Your task to perform on an android device: turn on improve location accuracy Image 0: 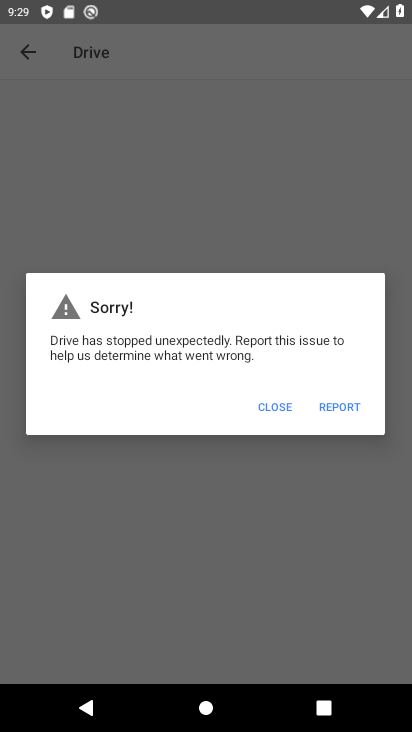
Step 0: press home button
Your task to perform on an android device: turn on improve location accuracy Image 1: 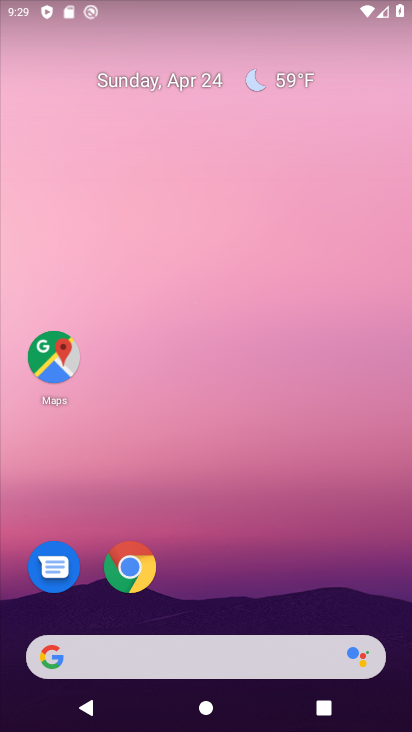
Step 1: drag from (393, 607) to (361, 367)
Your task to perform on an android device: turn on improve location accuracy Image 2: 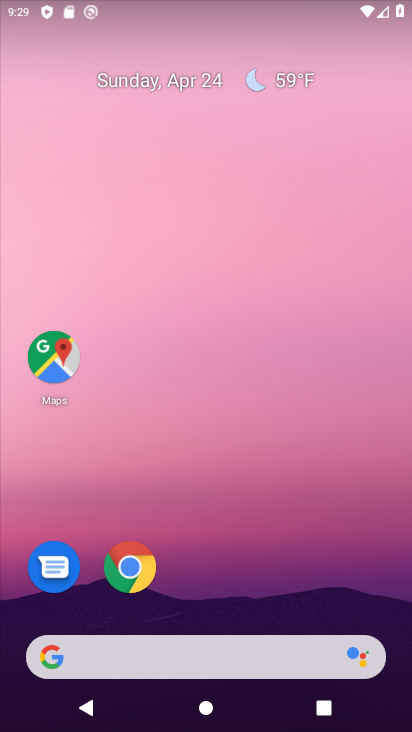
Step 2: drag from (393, 465) to (392, 270)
Your task to perform on an android device: turn on improve location accuracy Image 3: 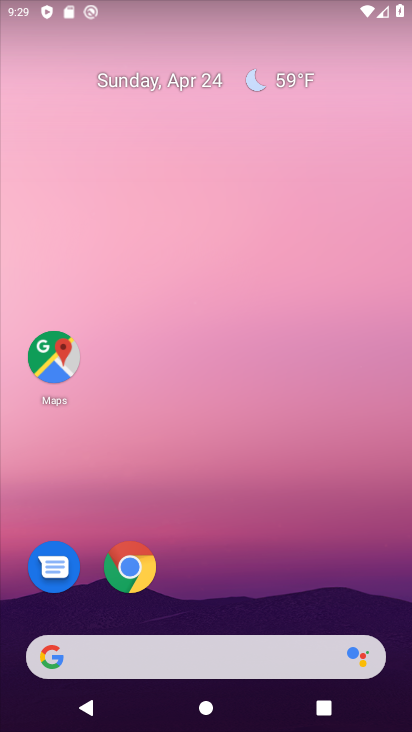
Step 3: drag from (390, 545) to (366, 212)
Your task to perform on an android device: turn on improve location accuracy Image 4: 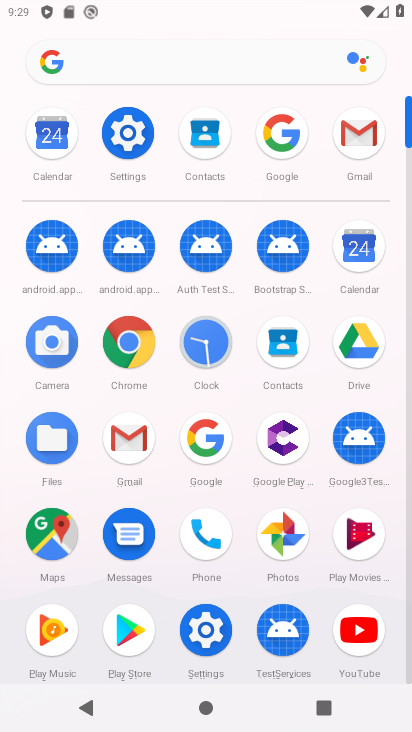
Step 4: click (128, 135)
Your task to perform on an android device: turn on improve location accuracy Image 5: 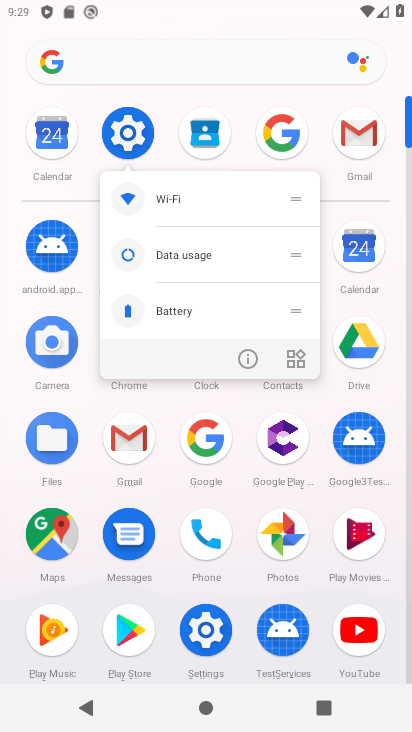
Step 5: click (131, 139)
Your task to perform on an android device: turn on improve location accuracy Image 6: 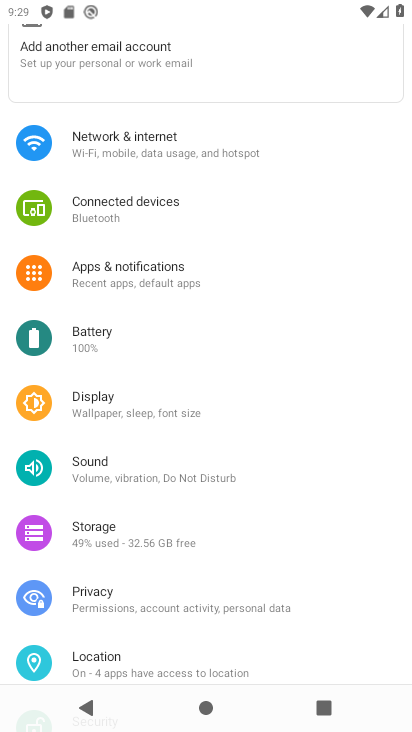
Step 6: click (131, 140)
Your task to perform on an android device: turn on improve location accuracy Image 7: 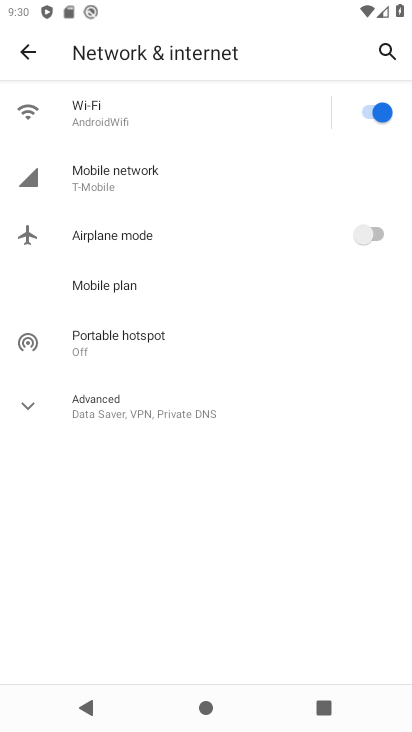
Step 7: press back button
Your task to perform on an android device: turn on improve location accuracy Image 8: 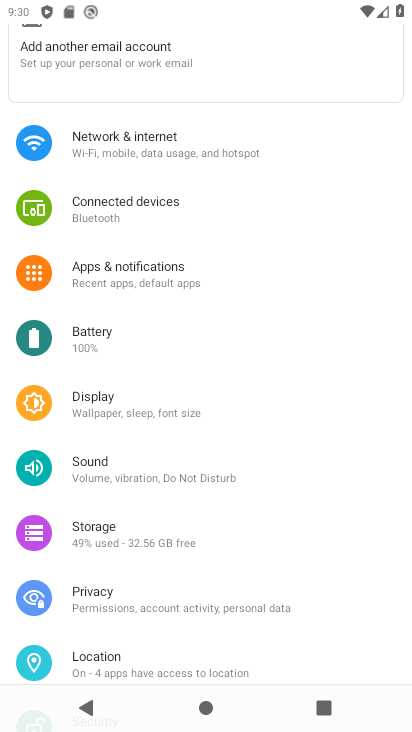
Step 8: click (88, 658)
Your task to perform on an android device: turn on improve location accuracy Image 9: 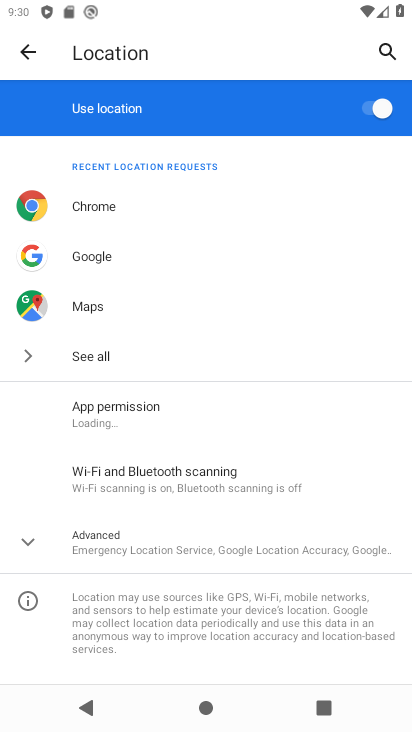
Step 9: click (34, 539)
Your task to perform on an android device: turn on improve location accuracy Image 10: 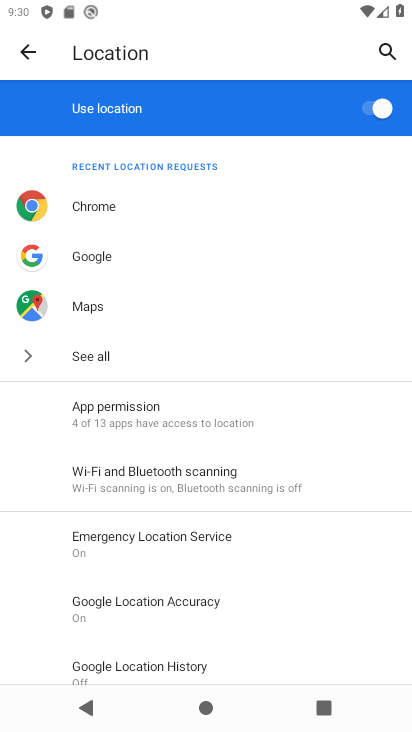
Step 10: drag from (261, 637) to (255, 388)
Your task to perform on an android device: turn on improve location accuracy Image 11: 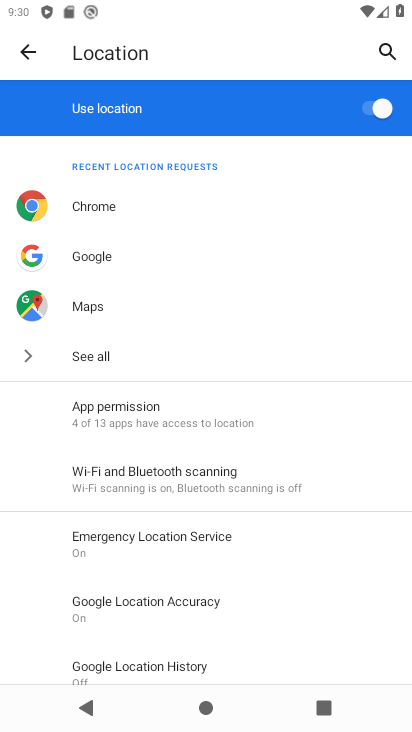
Step 11: click (143, 604)
Your task to perform on an android device: turn on improve location accuracy Image 12: 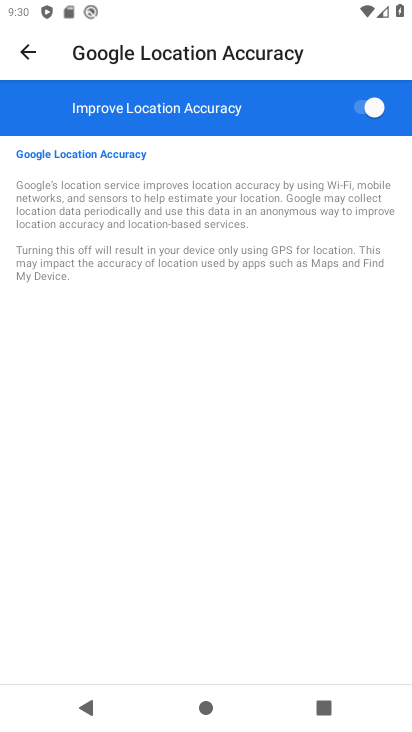
Step 12: task complete